Your task to perform on an android device: change alarm snooze length Image 0: 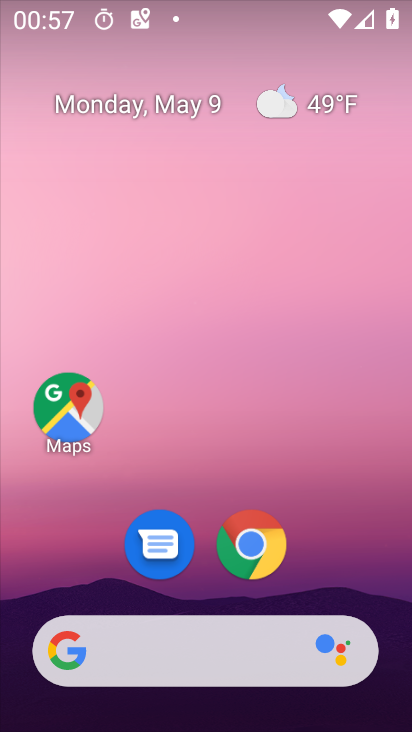
Step 0: drag from (331, 627) to (319, 70)
Your task to perform on an android device: change alarm snooze length Image 1: 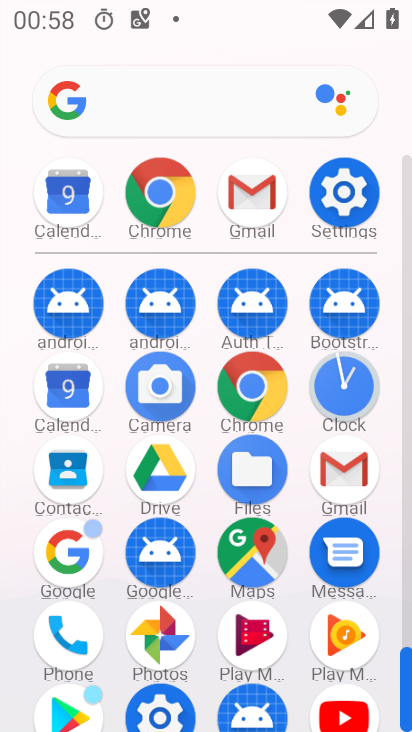
Step 1: click (349, 389)
Your task to perform on an android device: change alarm snooze length Image 2: 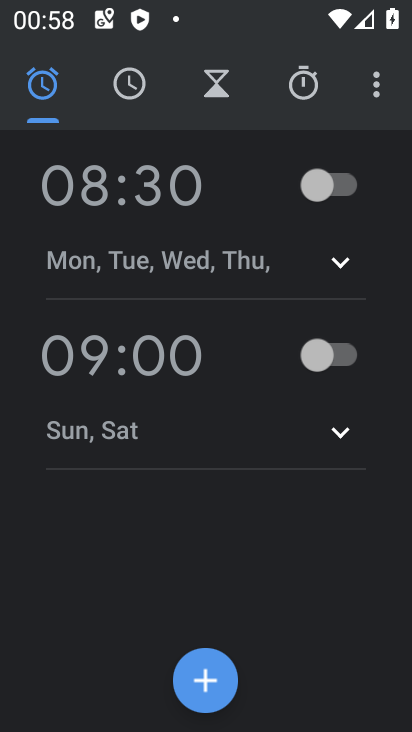
Step 2: drag from (367, 78) to (237, 174)
Your task to perform on an android device: change alarm snooze length Image 3: 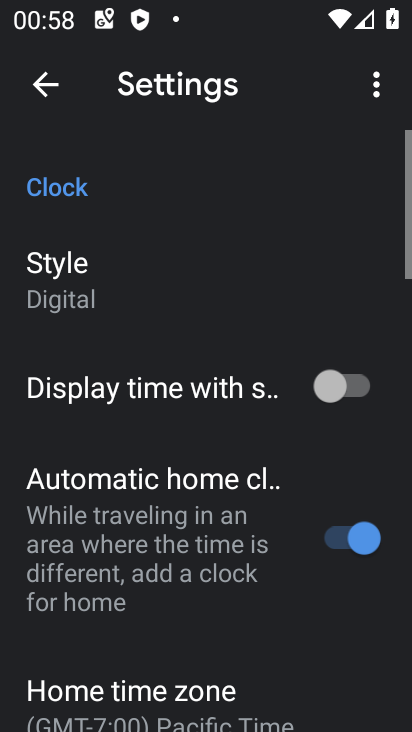
Step 3: drag from (236, 580) to (200, 41)
Your task to perform on an android device: change alarm snooze length Image 4: 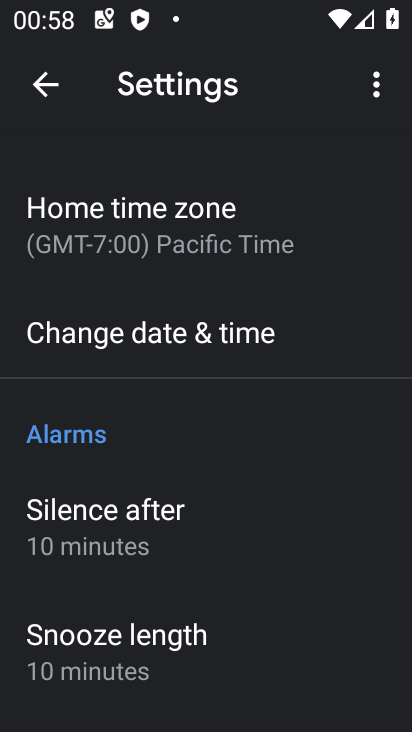
Step 4: click (135, 660)
Your task to perform on an android device: change alarm snooze length Image 5: 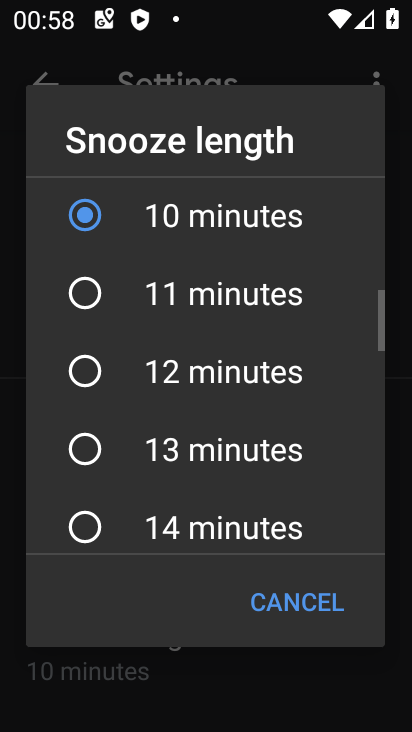
Step 5: click (94, 301)
Your task to perform on an android device: change alarm snooze length Image 6: 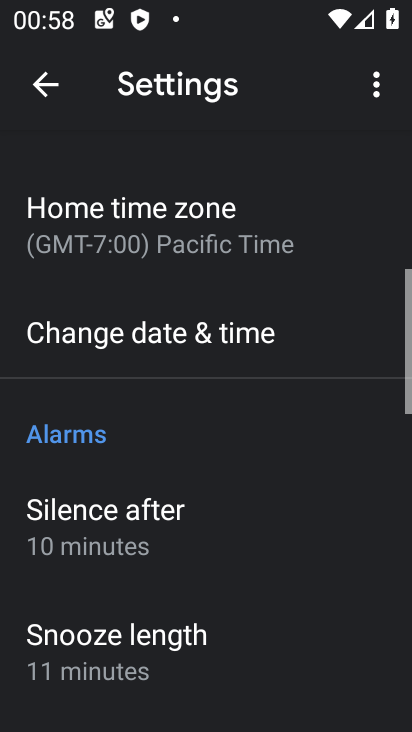
Step 6: task complete